Your task to perform on an android device: Do I have any events tomorrow? Image 0: 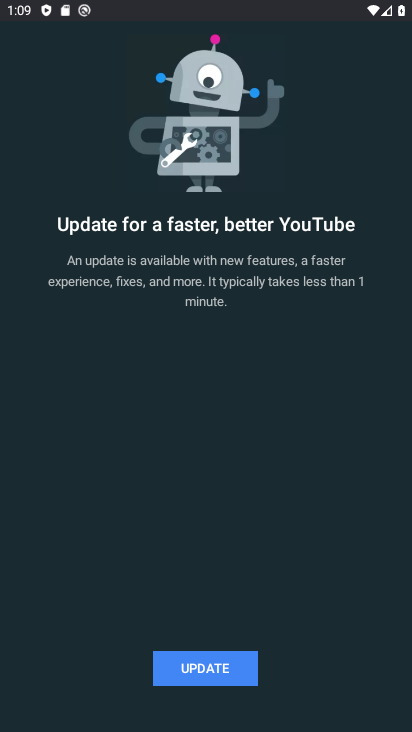
Step 0: press home button
Your task to perform on an android device: Do I have any events tomorrow? Image 1: 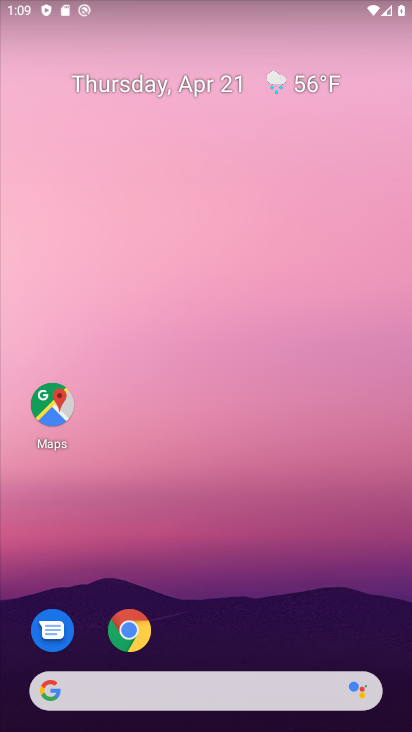
Step 1: drag from (207, 699) to (97, 5)
Your task to perform on an android device: Do I have any events tomorrow? Image 2: 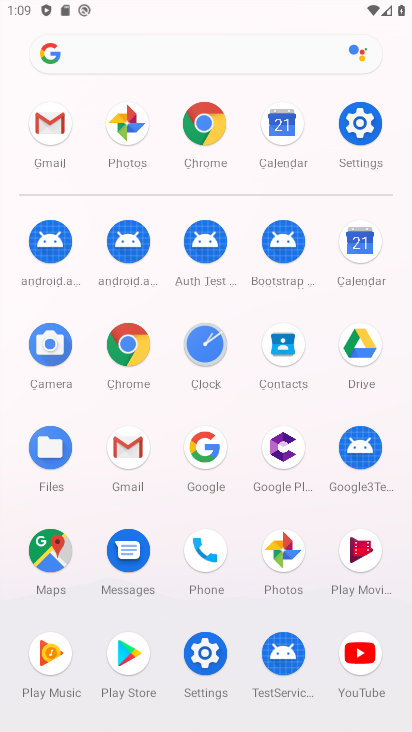
Step 2: click (360, 253)
Your task to perform on an android device: Do I have any events tomorrow? Image 3: 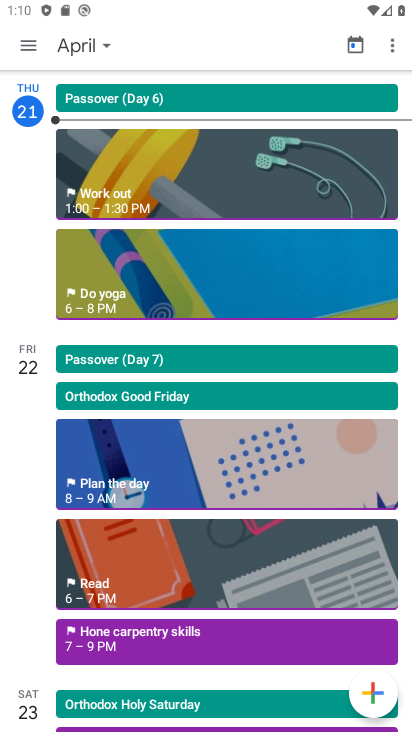
Step 3: task complete